Your task to perform on an android device: snooze an email in the gmail app Image 0: 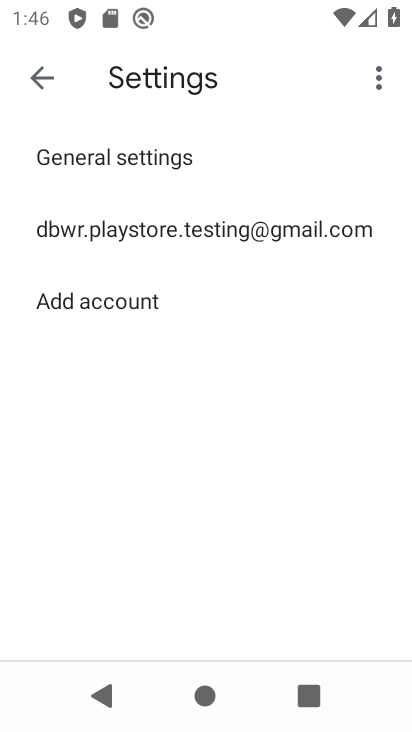
Step 0: click (48, 78)
Your task to perform on an android device: snooze an email in the gmail app Image 1: 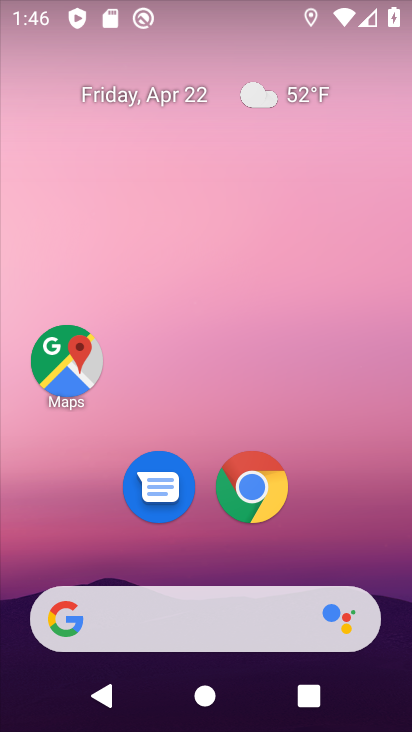
Step 1: drag from (211, 492) to (230, 125)
Your task to perform on an android device: snooze an email in the gmail app Image 2: 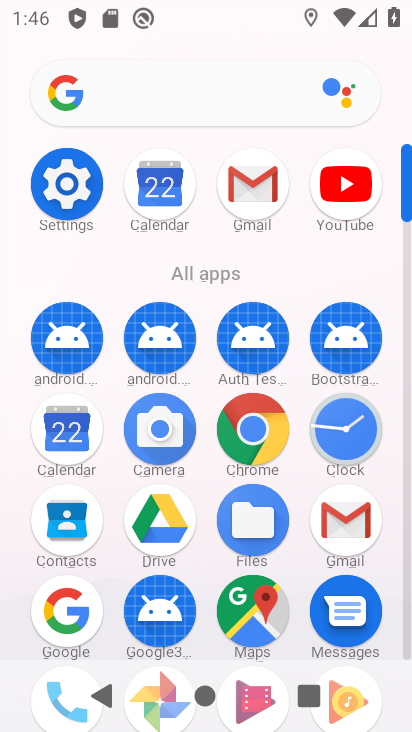
Step 2: click (341, 510)
Your task to perform on an android device: snooze an email in the gmail app Image 3: 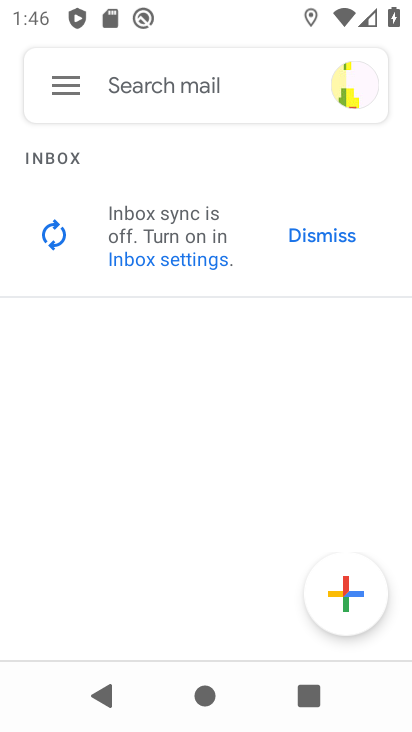
Step 3: click (63, 85)
Your task to perform on an android device: snooze an email in the gmail app Image 4: 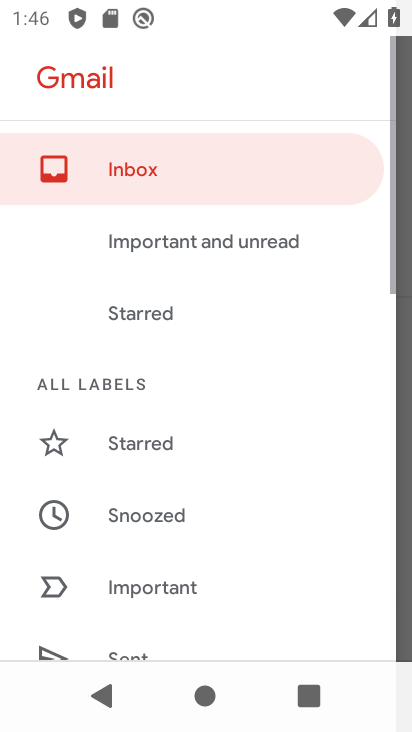
Step 4: drag from (149, 502) to (234, 216)
Your task to perform on an android device: snooze an email in the gmail app Image 5: 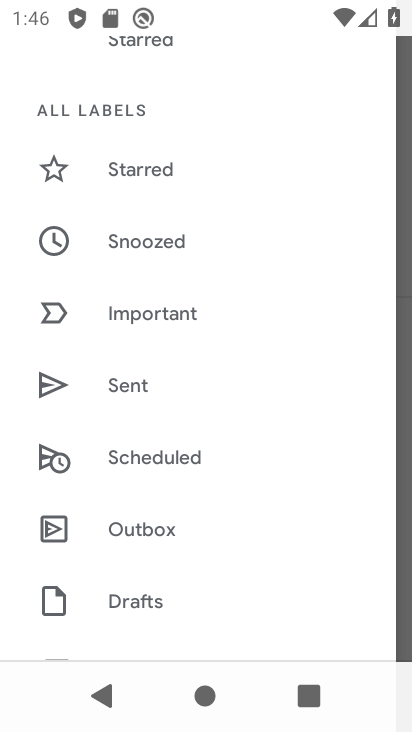
Step 5: drag from (206, 578) to (216, 314)
Your task to perform on an android device: snooze an email in the gmail app Image 6: 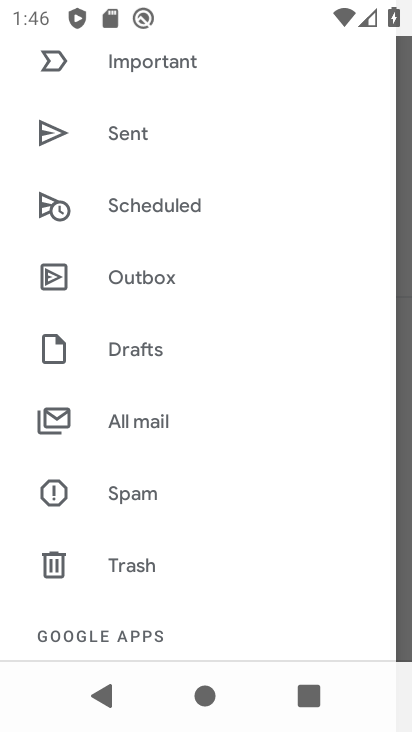
Step 6: click (108, 427)
Your task to perform on an android device: snooze an email in the gmail app Image 7: 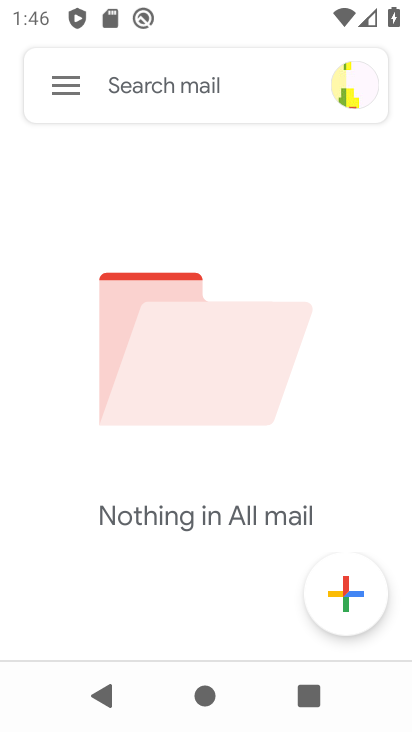
Step 7: task complete